Your task to perform on an android device: Clear all items from cart on bestbuy. Search for macbook pro 13 inch on bestbuy, select the first entry, and add it to the cart. Image 0: 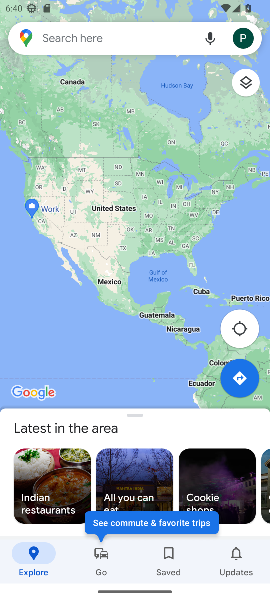
Step 0: press home button
Your task to perform on an android device: Clear all items from cart on bestbuy. Search for macbook pro 13 inch on bestbuy, select the first entry, and add it to the cart. Image 1: 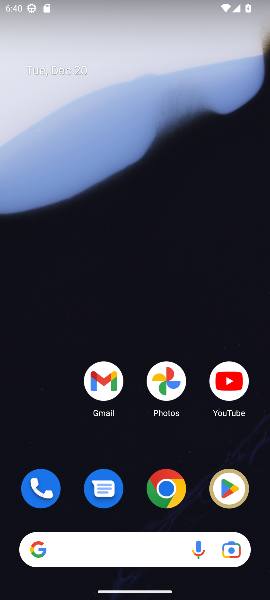
Step 1: drag from (40, 440) to (42, 47)
Your task to perform on an android device: Clear all items from cart on bestbuy. Search for macbook pro 13 inch on bestbuy, select the first entry, and add it to the cart. Image 2: 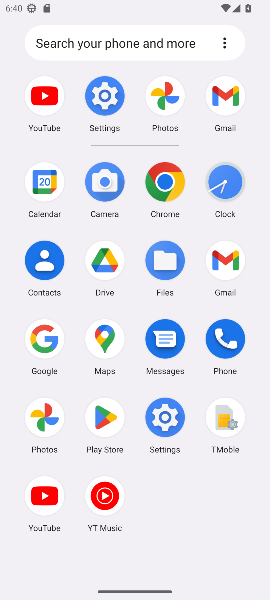
Step 2: click (42, 336)
Your task to perform on an android device: Clear all items from cart on bestbuy. Search for macbook pro 13 inch on bestbuy, select the first entry, and add it to the cart. Image 3: 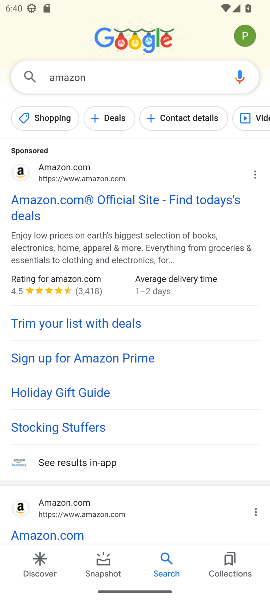
Step 3: click (109, 74)
Your task to perform on an android device: Clear all items from cart on bestbuy. Search for macbook pro 13 inch on bestbuy, select the first entry, and add it to the cart. Image 4: 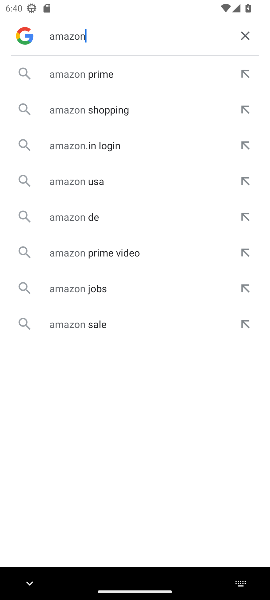
Step 4: click (246, 29)
Your task to perform on an android device: Clear all items from cart on bestbuy. Search for macbook pro 13 inch on bestbuy, select the first entry, and add it to the cart. Image 5: 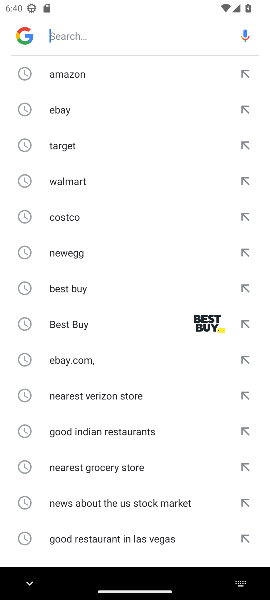
Step 5: type "bestbuy"
Your task to perform on an android device: Clear all items from cart on bestbuy. Search for macbook pro 13 inch on bestbuy, select the first entry, and add it to the cart. Image 6: 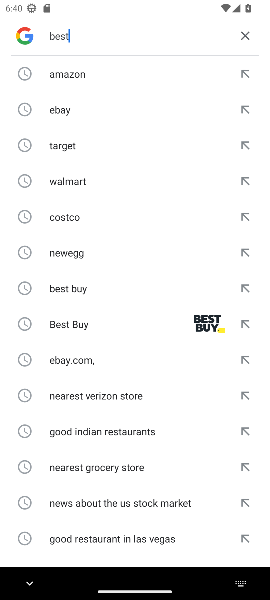
Step 6: press enter
Your task to perform on an android device: Clear all items from cart on bestbuy. Search for macbook pro 13 inch on bestbuy, select the first entry, and add it to the cart. Image 7: 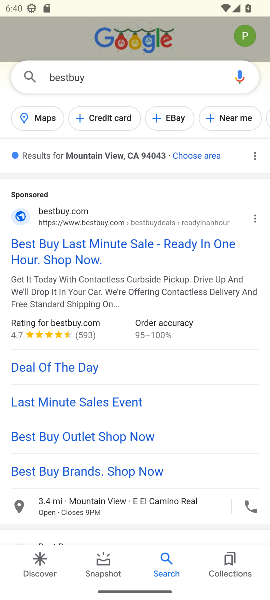
Step 7: click (68, 244)
Your task to perform on an android device: Clear all items from cart on bestbuy. Search for macbook pro 13 inch on bestbuy, select the first entry, and add it to the cart. Image 8: 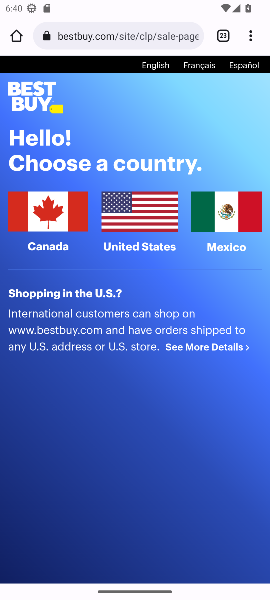
Step 8: click (19, 207)
Your task to perform on an android device: Clear all items from cart on bestbuy. Search for macbook pro 13 inch on bestbuy, select the first entry, and add it to the cart. Image 9: 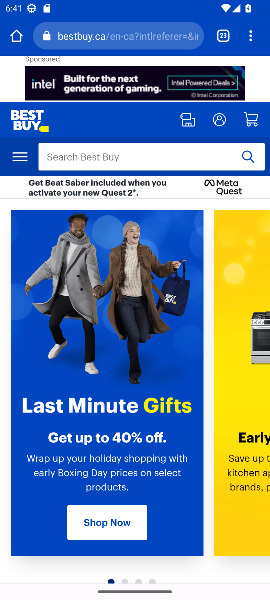
Step 9: click (251, 125)
Your task to perform on an android device: Clear all items from cart on bestbuy. Search for macbook pro 13 inch on bestbuy, select the first entry, and add it to the cart. Image 10: 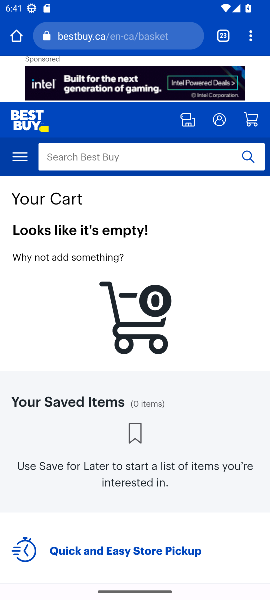
Step 10: click (77, 153)
Your task to perform on an android device: Clear all items from cart on bestbuy. Search for macbook pro 13 inch on bestbuy, select the first entry, and add it to the cart. Image 11: 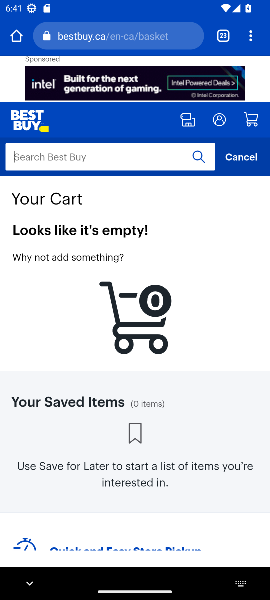
Step 11: type "macbook pro 13"
Your task to perform on an android device: Clear all items from cart on bestbuy. Search for macbook pro 13 inch on bestbuy, select the first entry, and add it to the cart. Image 12: 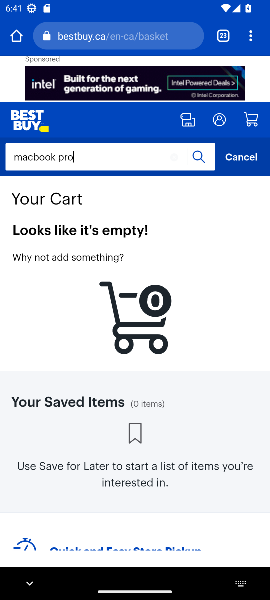
Step 12: press enter
Your task to perform on an android device: Clear all items from cart on bestbuy. Search for macbook pro 13 inch on bestbuy, select the first entry, and add it to the cart. Image 13: 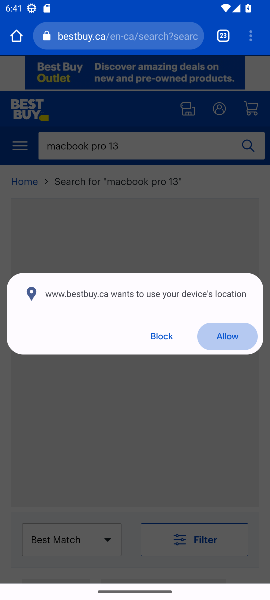
Step 13: click (157, 333)
Your task to perform on an android device: Clear all items from cart on bestbuy. Search for macbook pro 13 inch on bestbuy, select the first entry, and add it to the cart. Image 14: 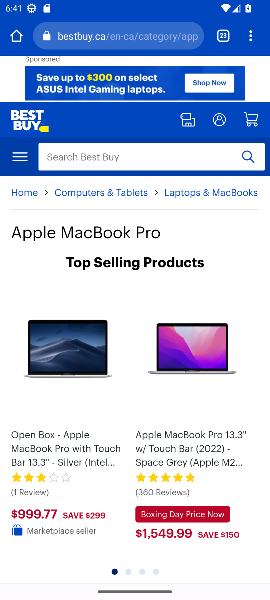
Step 14: drag from (188, 446) to (195, 242)
Your task to perform on an android device: Clear all items from cart on bestbuy. Search for macbook pro 13 inch on bestbuy, select the first entry, and add it to the cart. Image 15: 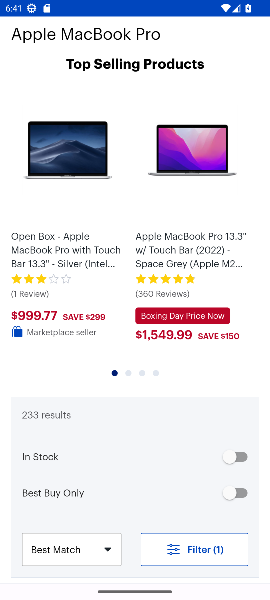
Step 15: click (168, 253)
Your task to perform on an android device: Clear all items from cart on bestbuy. Search for macbook pro 13 inch on bestbuy, select the first entry, and add it to the cart. Image 16: 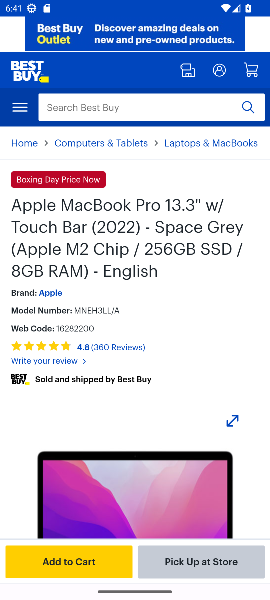
Step 16: click (67, 560)
Your task to perform on an android device: Clear all items from cart on bestbuy. Search for macbook pro 13 inch on bestbuy, select the first entry, and add it to the cart. Image 17: 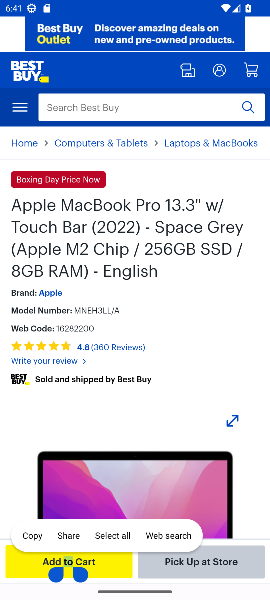
Step 17: click (28, 564)
Your task to perform on an android device: Clear all items from cart on bestbuy. Search for macbook pro 13 inch on bestbuy, select the first entry, and add it to the cart. Image 18: 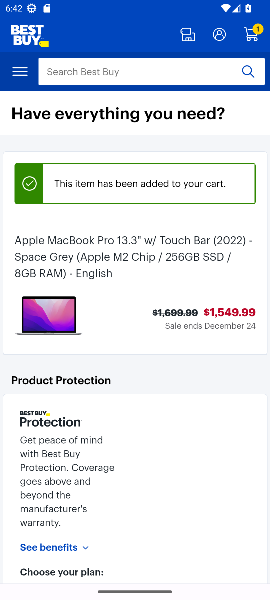
Step 18: task complete